Your task to perform on an android device: What's the weather? Image 0: 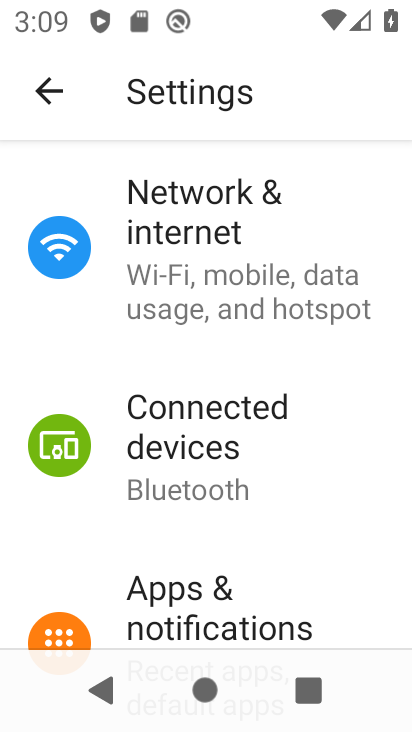
Step 0: press home button
Your task to perform on an android device: What's the weather? Image 1: 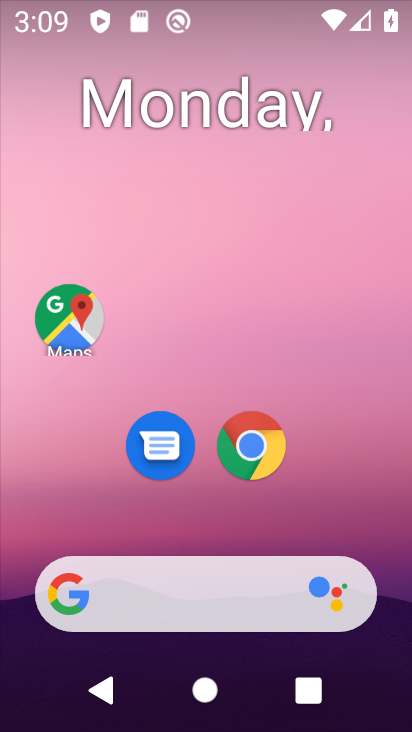
Step 1: click (183, 584)
Your task to perform on an android device: What's the weather? Image 2: 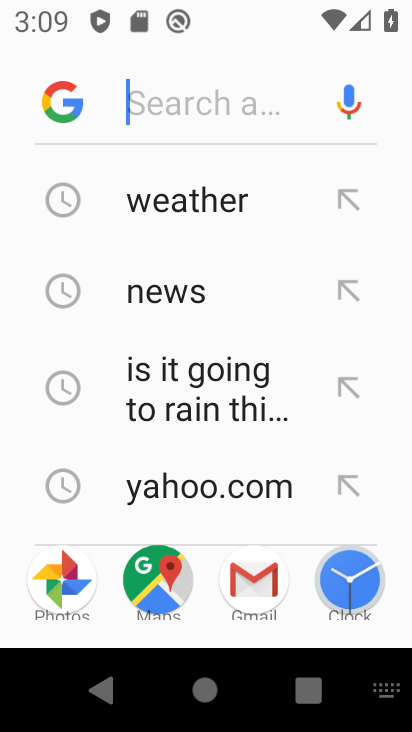
Step 2: click (207, 178)
Your task to perform on an android device: What's the weather? Image 3: 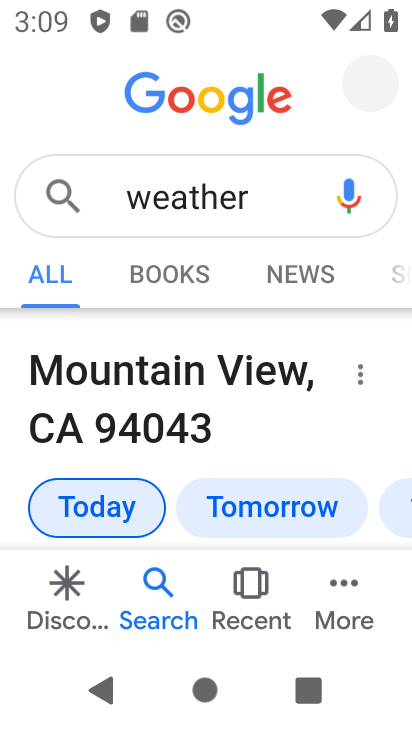
Step 3: task complete